Your task to perform on an android device: Open display settings Image 0: 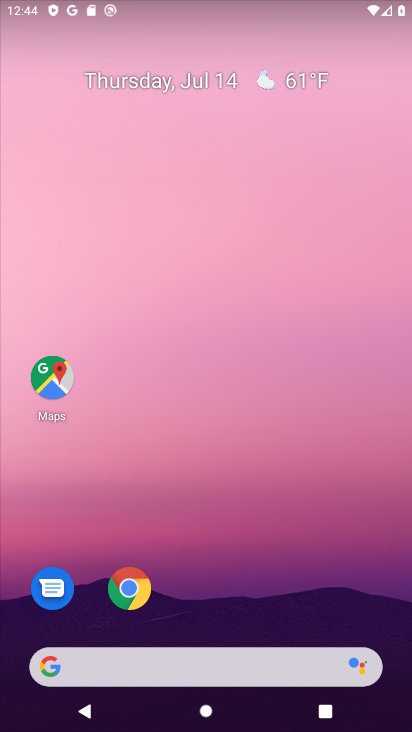
Step 0: drag from (256, 637) to (324, 20)
Your task to perform on an android device: Open display settings Image 1: 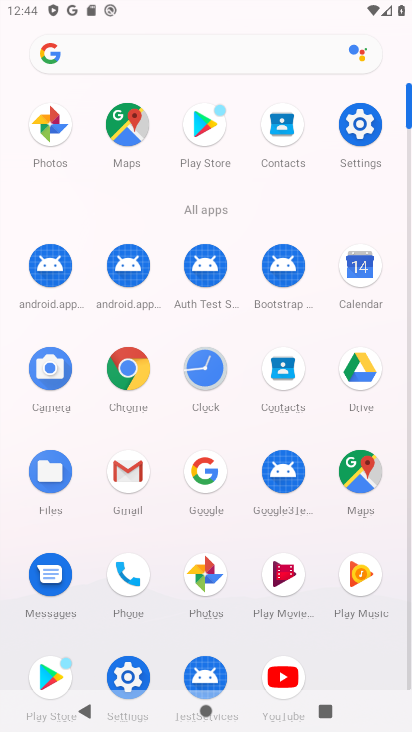
Step 1: click (130, 671)
Your task to perform on an android device: Open display settings Image 2: 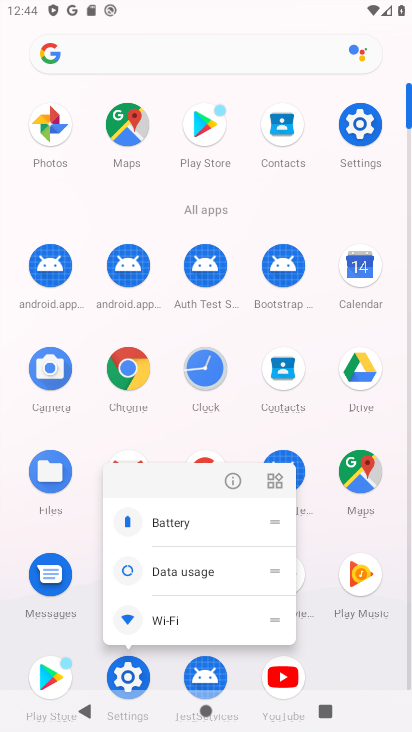
Step 2: click (131, 667)
Your task to perform on an android device: Open display settings Image 3: 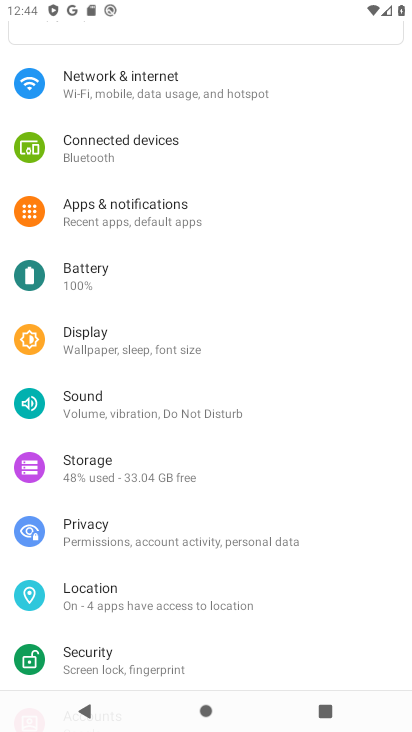
Step 3: click (114, 345)
Your task to perform on an android device: Open display settings Image 4: 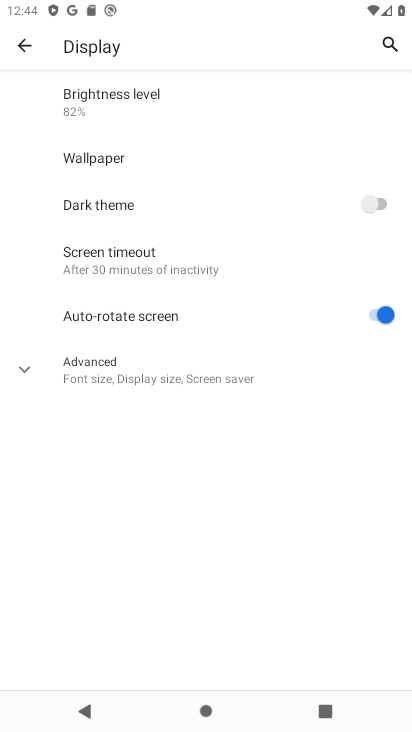
Step 4: task complete